Your task to perform on an android device: change text size in settings app Image 0: 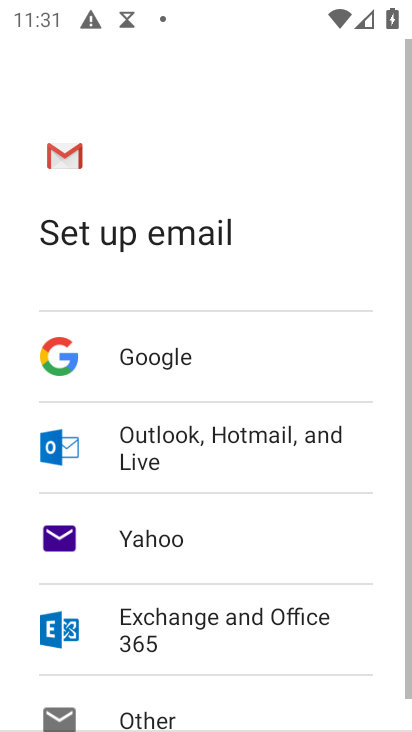
Step 0: press home button
Your task to perform on an android device: change text size in settings app Image 1: 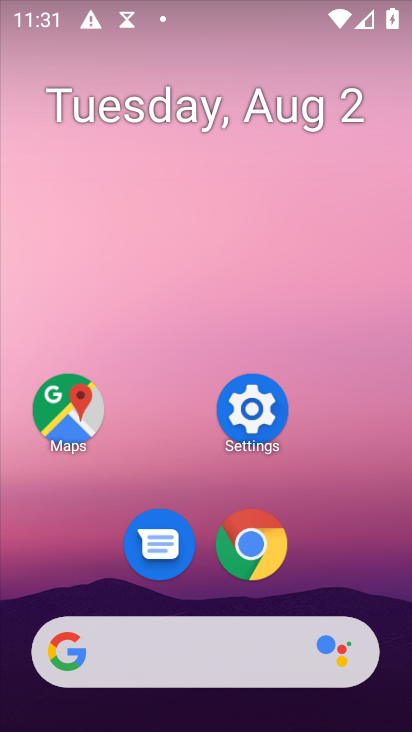
Step 1: click (265, 406)
Your task to perform on an android device: change text size in settings app Image 2: 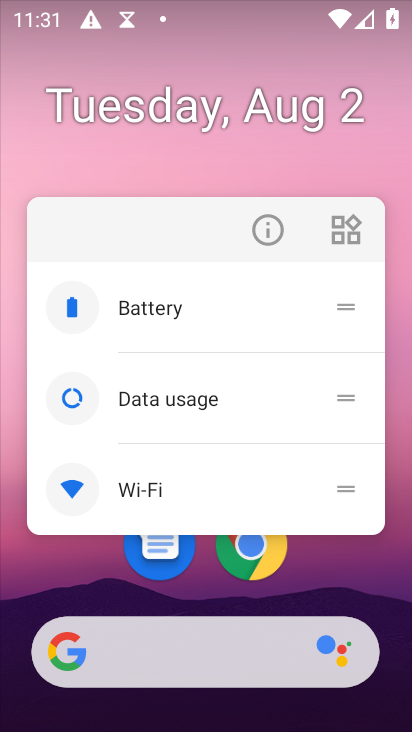
Step 2: click (344, 558)
Your task to perform on an android device: change text size in settings app Image 3: 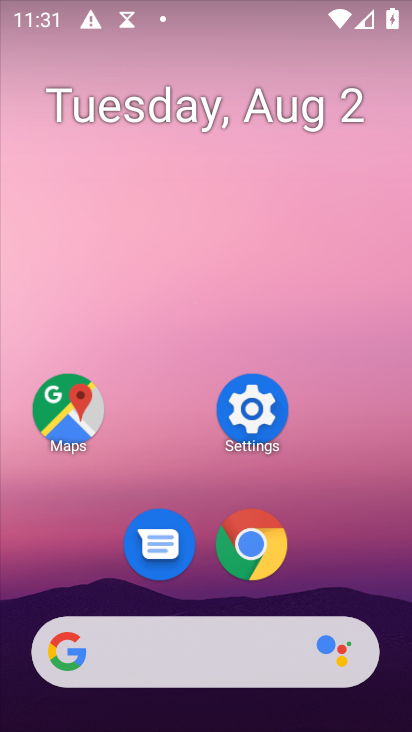
Step 3: click (258, 408)
Your task to perform on an android device: change text size in settings app Image 4: 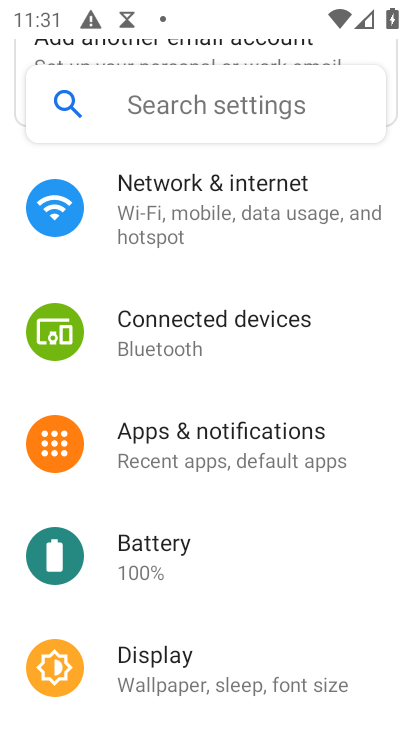
Step 4: click (169, 658)
Your task to perform on an android device: change text size in settings app Image 5: 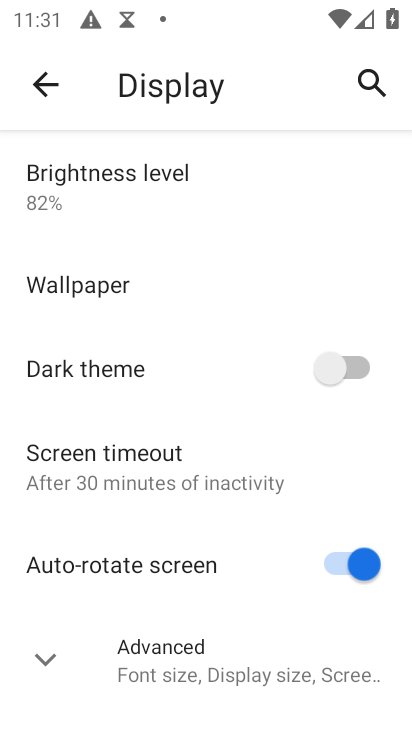
Step 5: drag from (230, 595) to (313, 156)
Your task to perform on an android device: change text size in settings app Image 6: 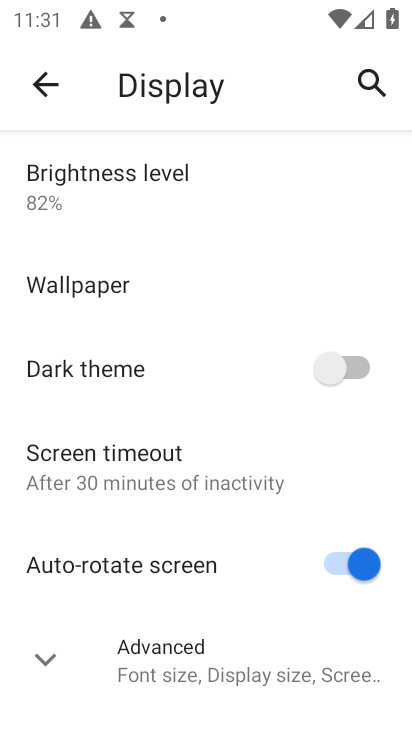
Step 6: click (149, 658)
Your task to perform on an android device: change text size in settings app Image 7: 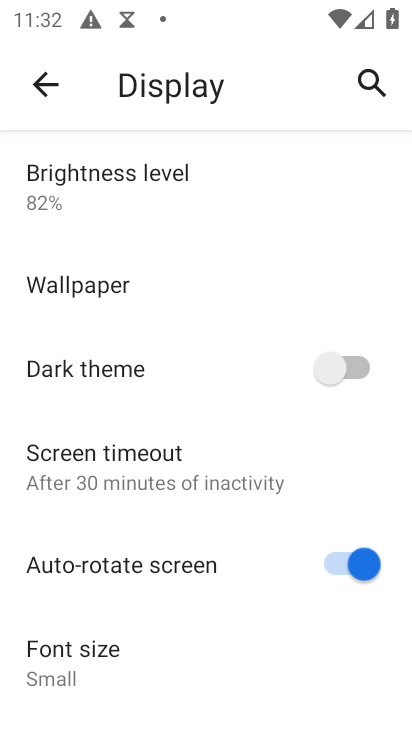
Step 7: drag from (247, 617) to (362, 178)
Your task to perform on an android device: change text size in settings app Image 8: 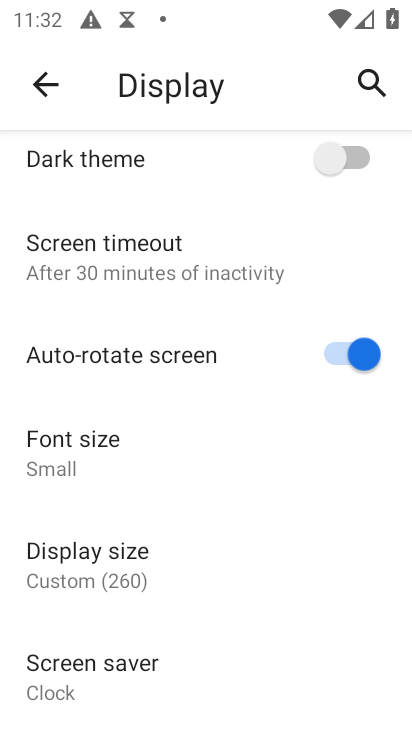
Step 8: click (66, 433)
Your task to perform on an android device: change text size in settings app Image 9: 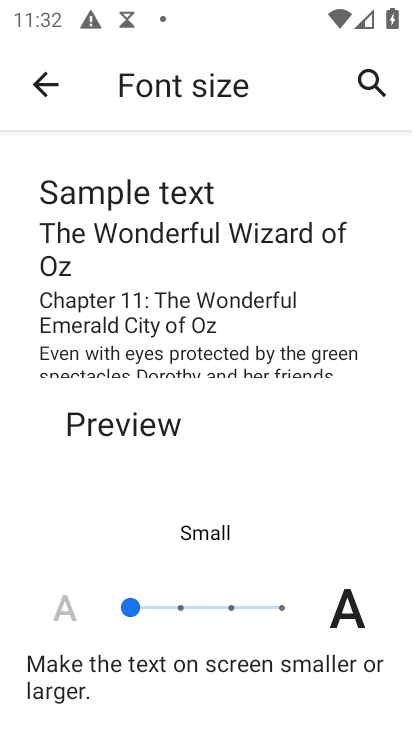
Step 9: click (182, 606)
Your task to perform on an android device: change text size in settings app Image 10: 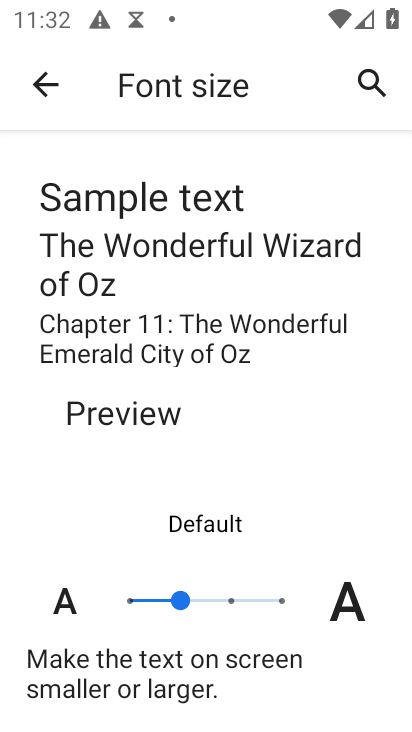
Step 10: task complete